Your task to perform on an android device: What time is it in Sydney? Image 0: 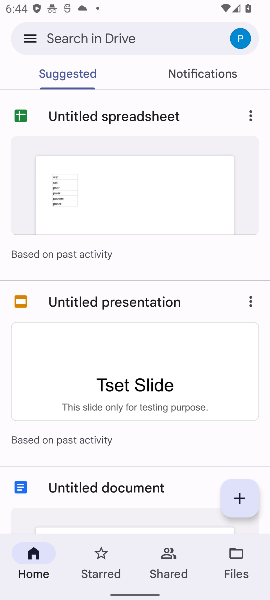
Step 0: press home button
Your task to perform on an android device: What time is it in Sydney? Image 1: 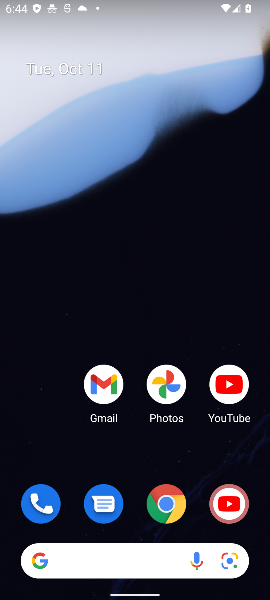
Step 1: click (84, 563)
Your task to perform on an android device: What time is it in Sydney? Image 2: 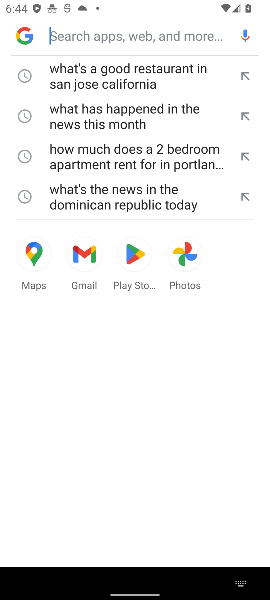
Step 2: click (65, 40)
Your task to perform on an android device: What time is it in Sydney? Image 3: 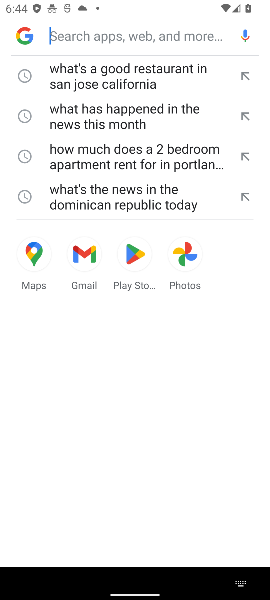
Step 3: type "What time is it in Sydney?"
Your task to perform on an android device: What time is it in Sydney? Image 4: 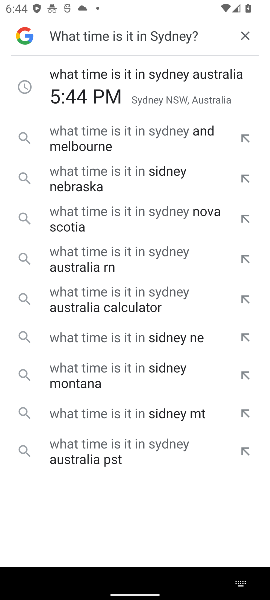
Step 4: click (140, 81)
Your task to perform on an android device: What time is it in Sydney? Image 5: 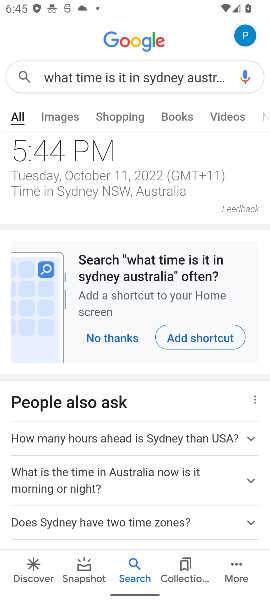
Step 5: task complete